Your task to perform on an android device: change notification settings in the gmail app Image 0: 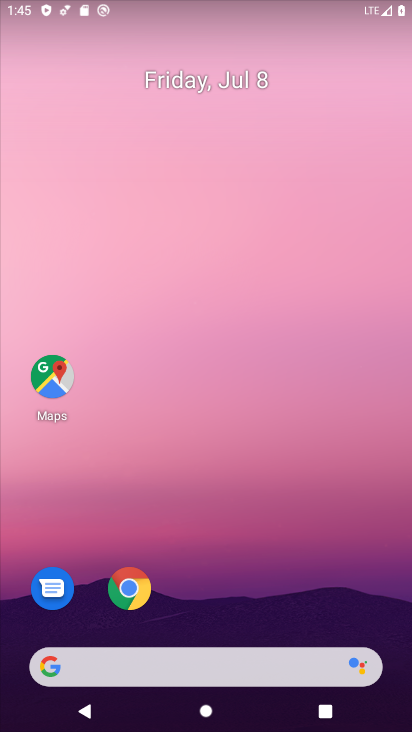
Step 0: press home button
Your task to perform on an android device: change notification settings in the gmail app Image 1: 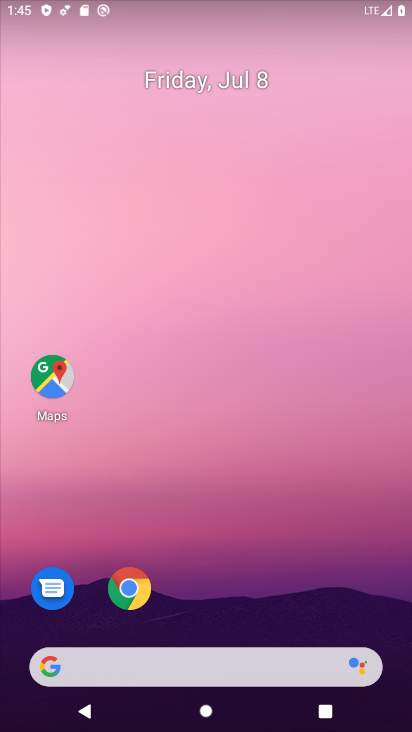
Step 1: drag from (249, 568) to (204, 84)
Your task to perform on an android device: change notification settings in the gmail app Image 2: 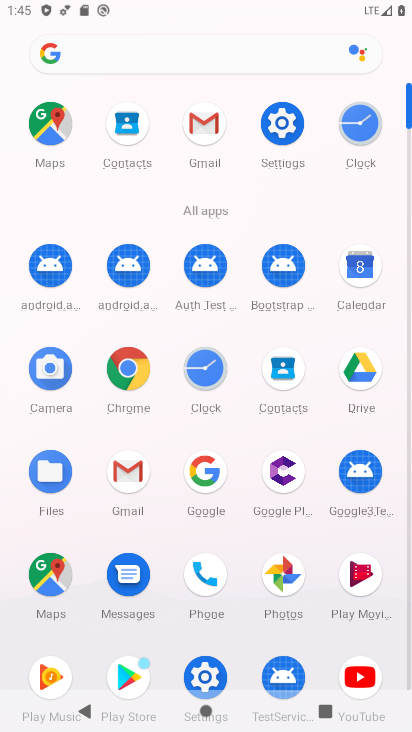
Step 2: click (210, 117)
Your task to perform on an android device: change notification settings in the gmail app Image 3: 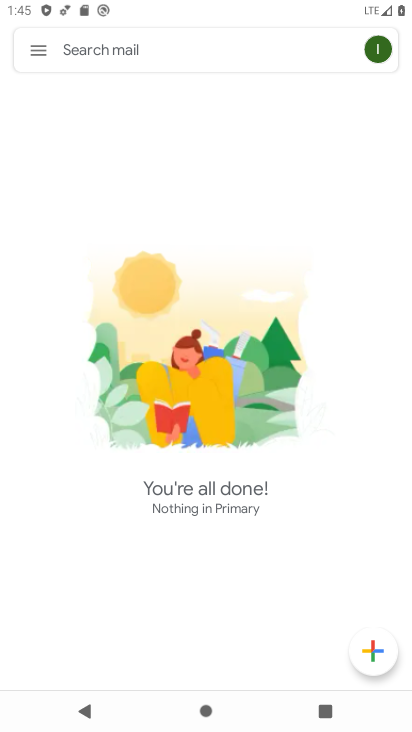
Step 3: click (39, 45)
Your task to perform on an android device: change notification settings in the gmail app Image 4: 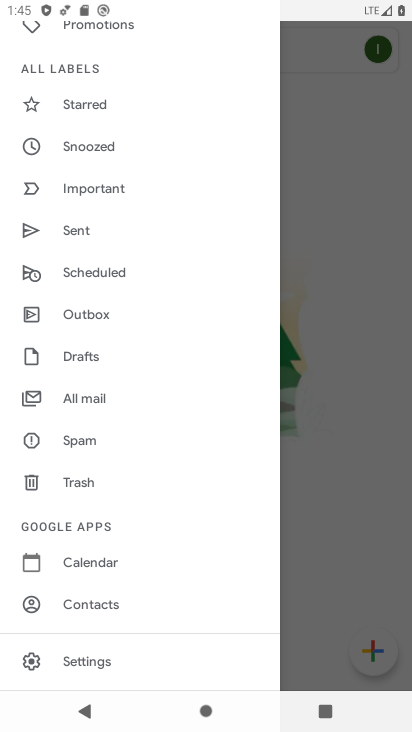
Step 4: click (97, 662)
Your task to perform on an android device: change notification settings in the gmail app Image 5: 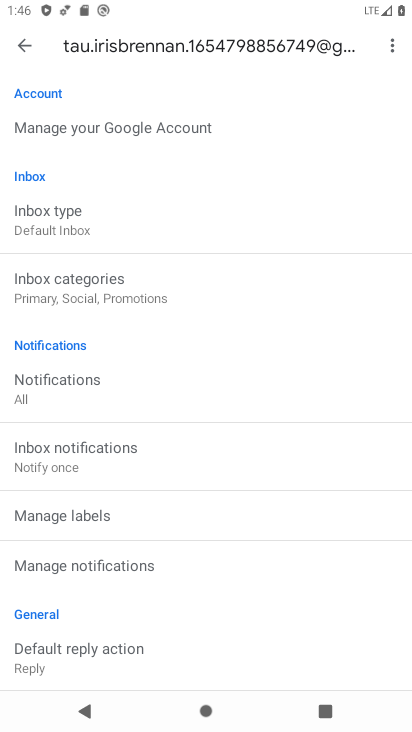
Step 5: click (17, 45)
Your task to perform on an android device: change notification settings in the gmail app Image 6: 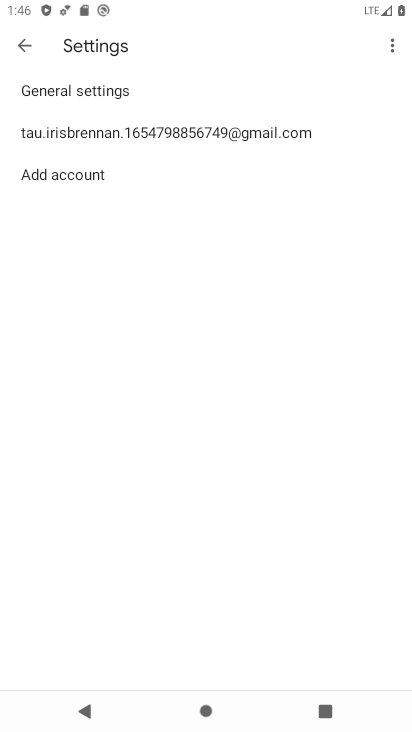
Step 6: click (85, 87)
Your task to perform on an android device: change notification settings in the gmail app Image 7: 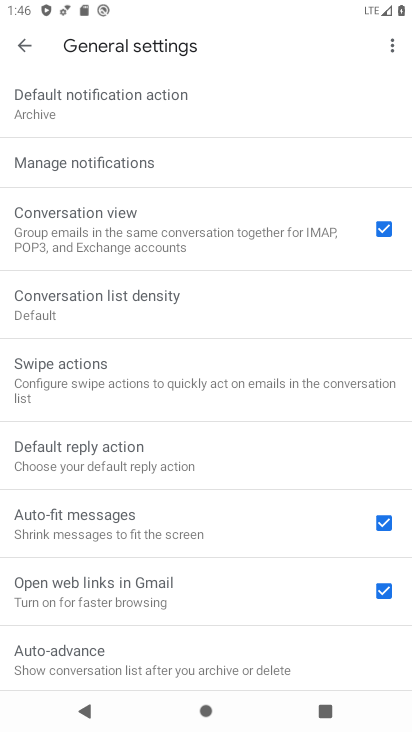
Step 7: click (80, 163)
Your task to perform on an android device: change notification settings in the gmail app Image 8: 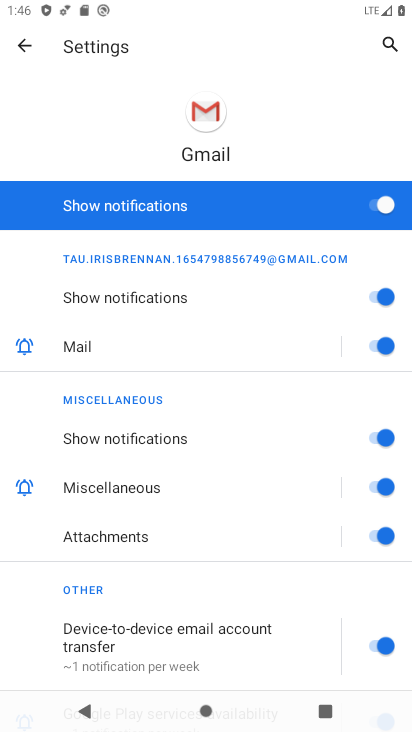
Step 8: click (394, 200)
Your task to perform on an android device: change notification settings in the gmail app Image 9: 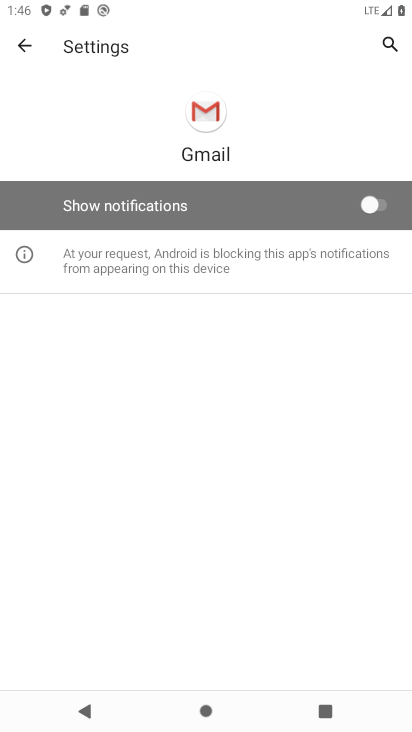
Step 9: task complete